Your task to perform on an android device: Open the web browser Image 0: 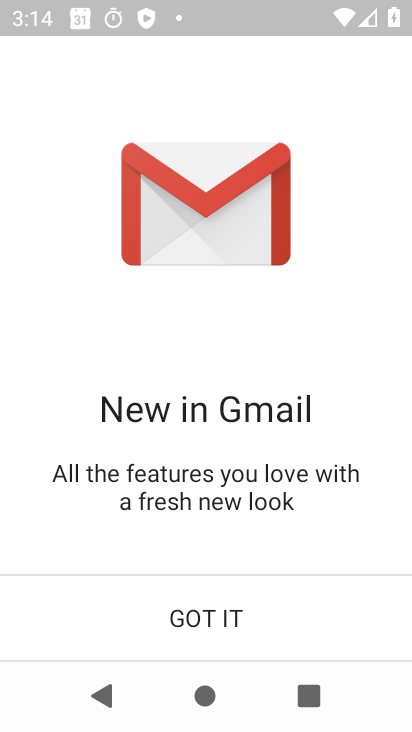
Step 0: press home button
Your task to perform on an android device: Open the web browser Image 1: 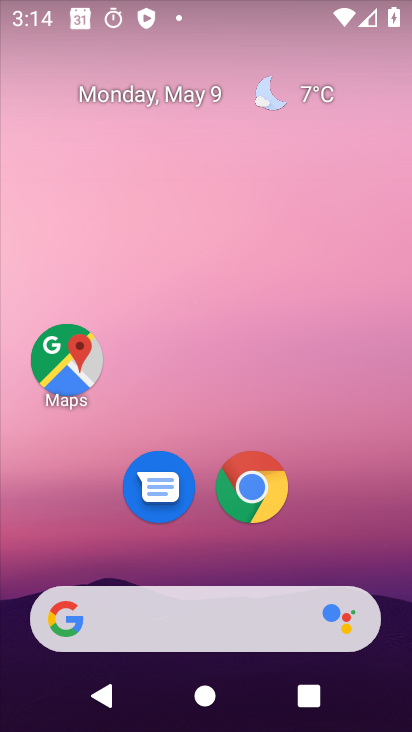
Step 1: drag from (334, 561) to (333, 20)
Your task to perform on an android device: Open the web browser Image 2: 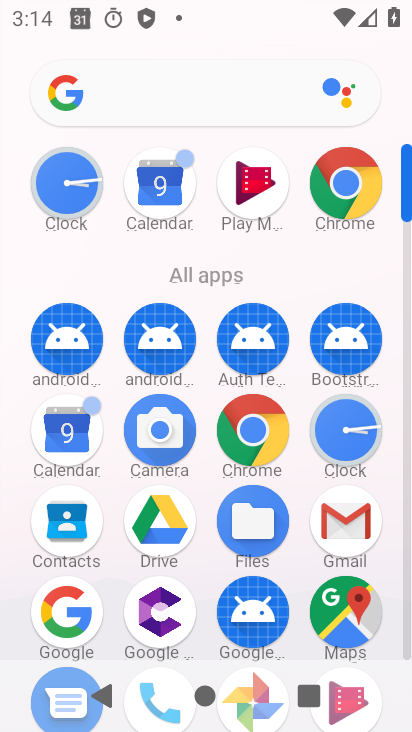
Step 2: click (251, 424)
Your task to perform on an android device: Open the web browser Image 3: 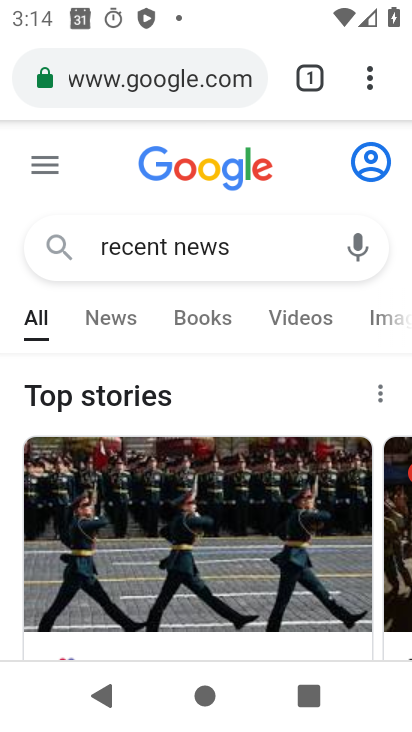
Step 3: task complete